Your task to perform on an android device: Open Maps and search for coffee Image 0: 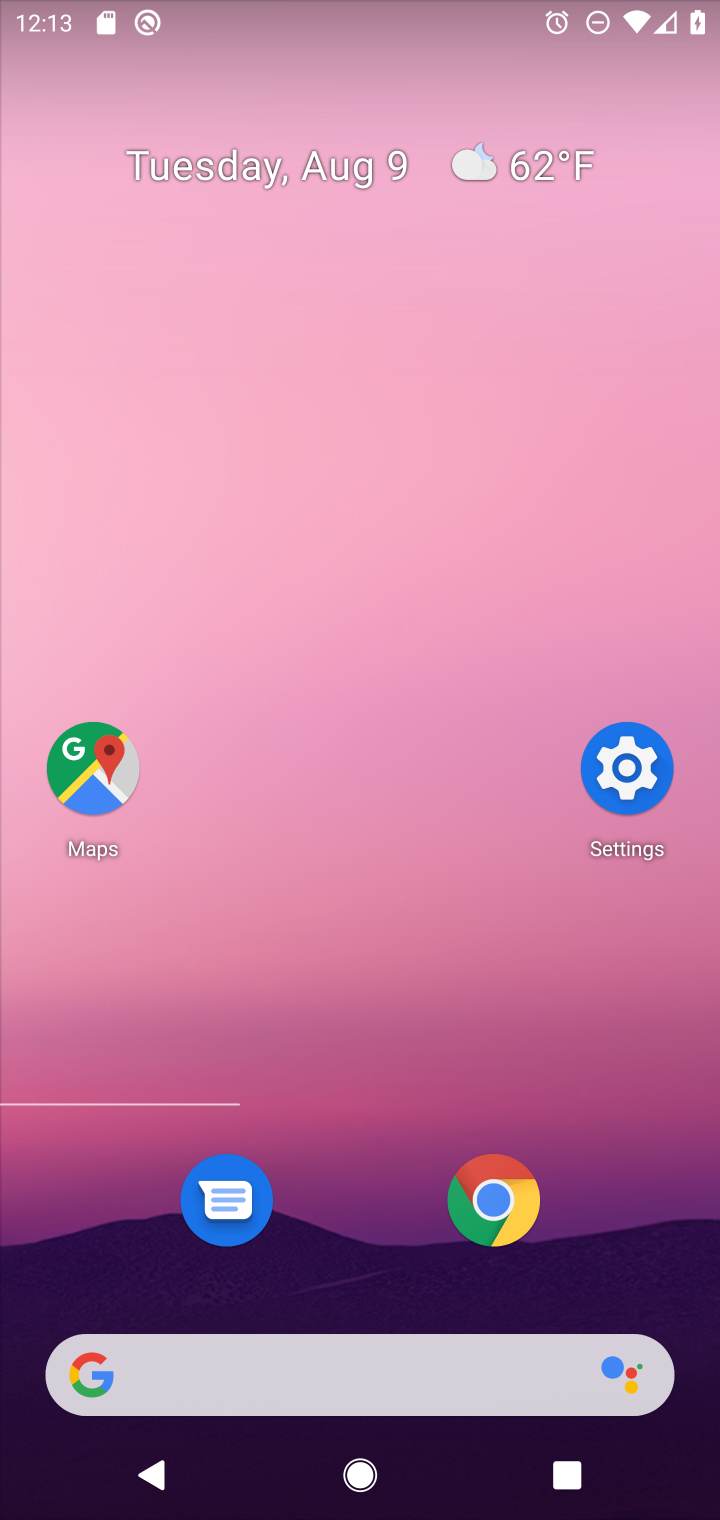
Step 0: press home button
Your task to perform on an android device: Open Maps and search for coffee Image 1: 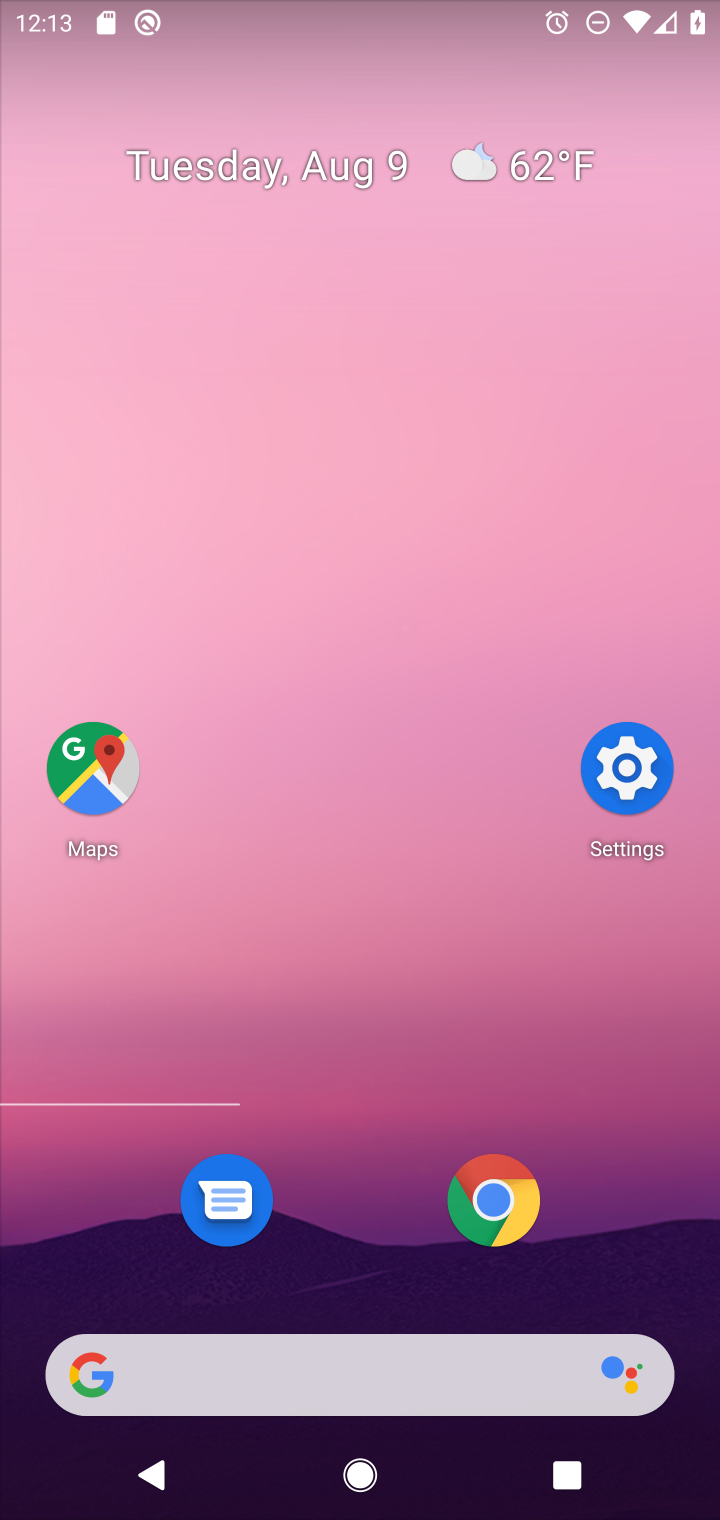
Step 1: click (89, 770)
Your task to perform on an android device: Open Maps and search for coffee Image 2: 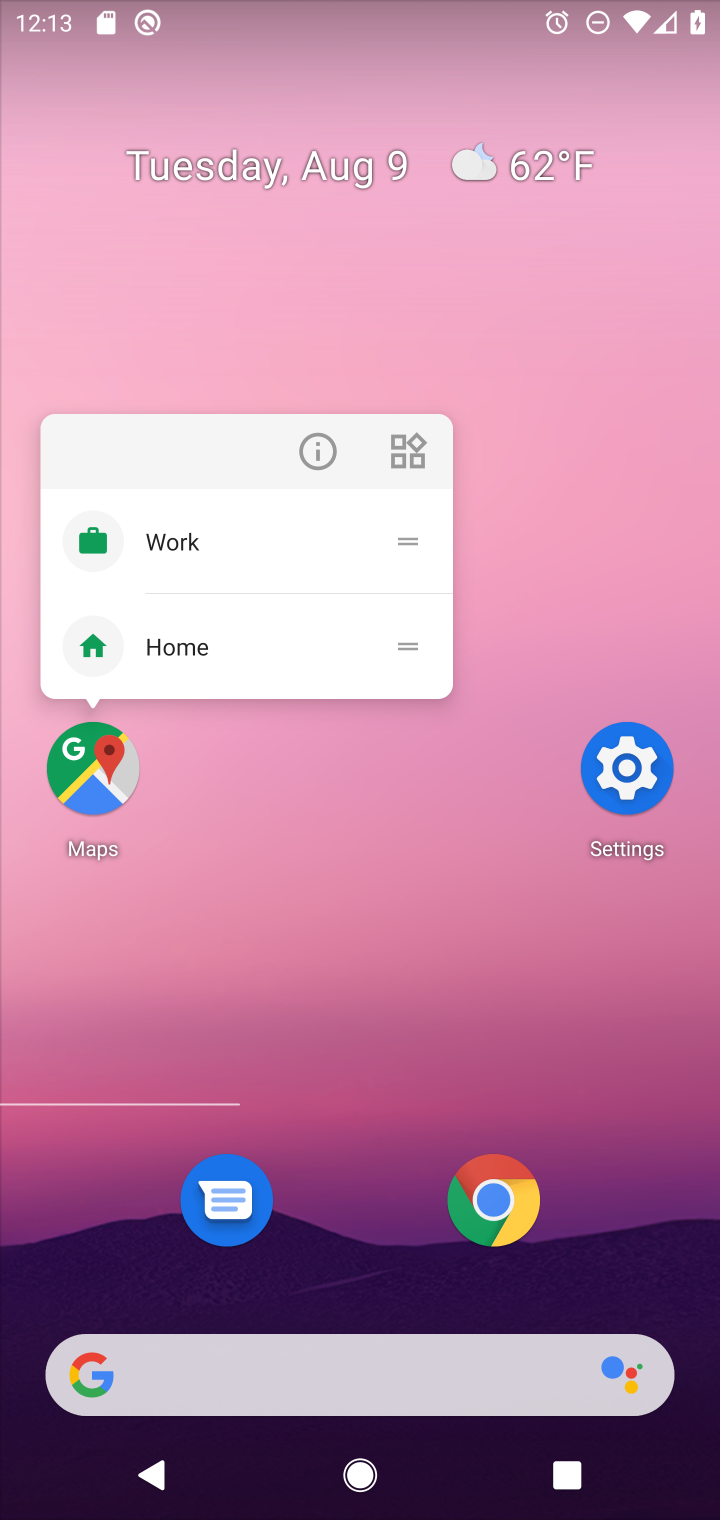
Step 2: click (89, 768)
Your task to perform on an android device: Open Maps and search for coffee Image 3: 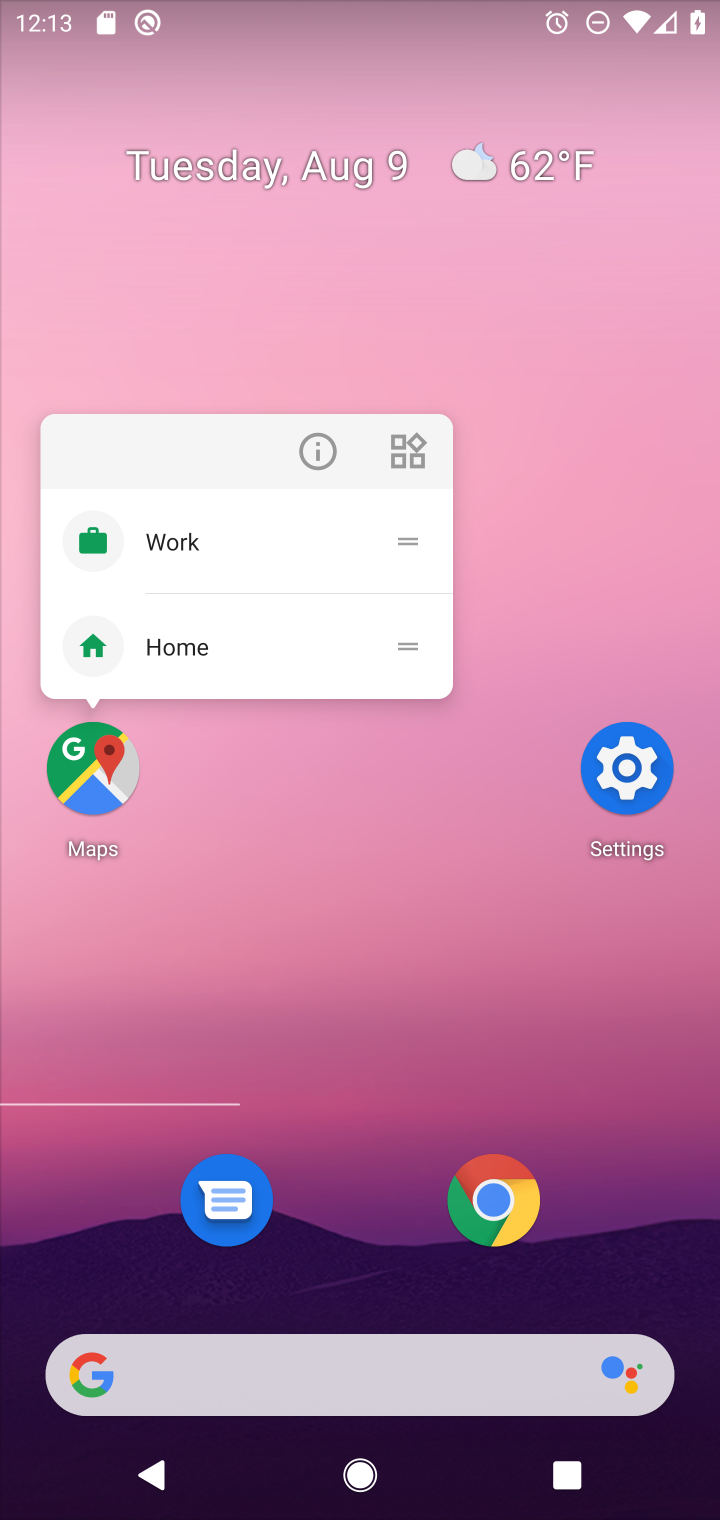
Step 3: click (89, 772)
Your task to perform on an android device: Open Maps and search for coffee Image 4: 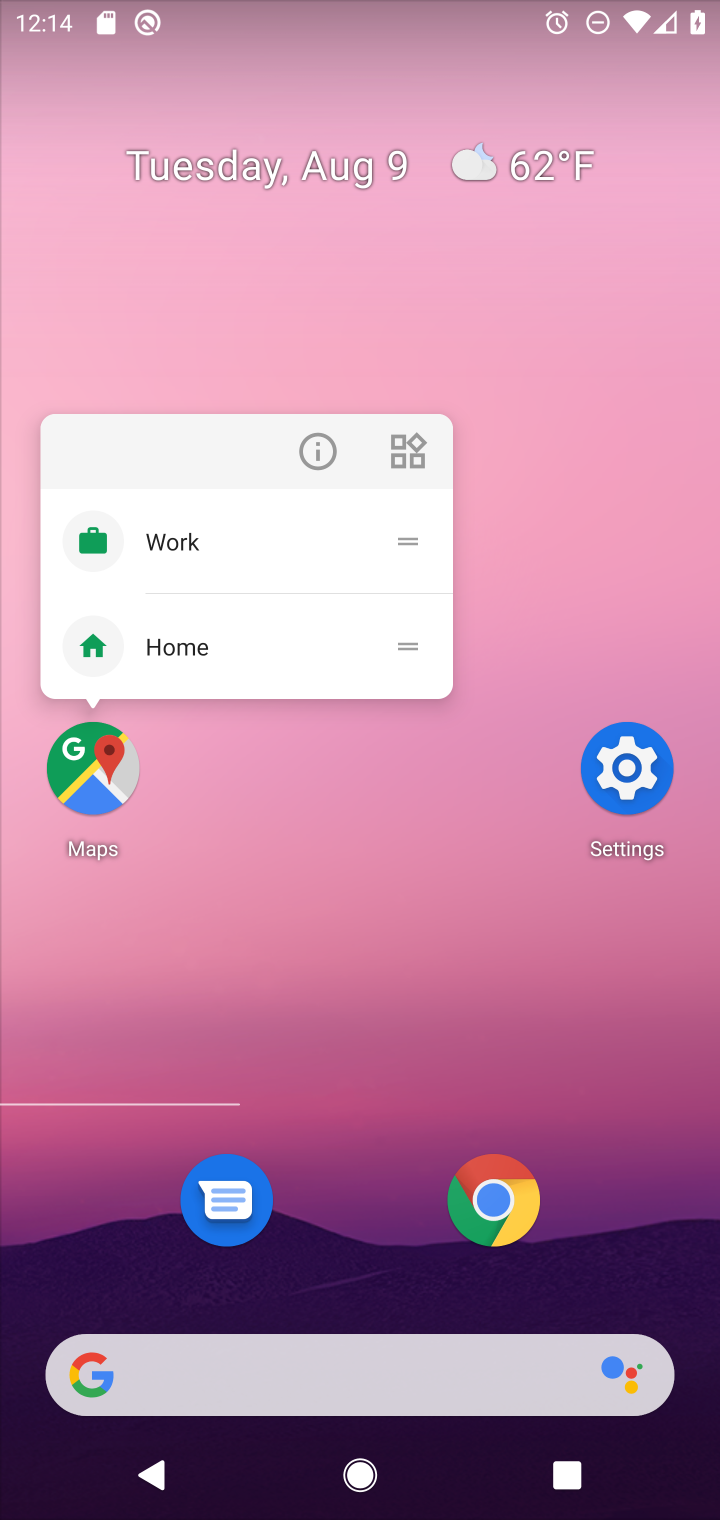
Step 4: click (89, 772)
Your task to perform on an android device: Open Maps and search for coffee Image 5: 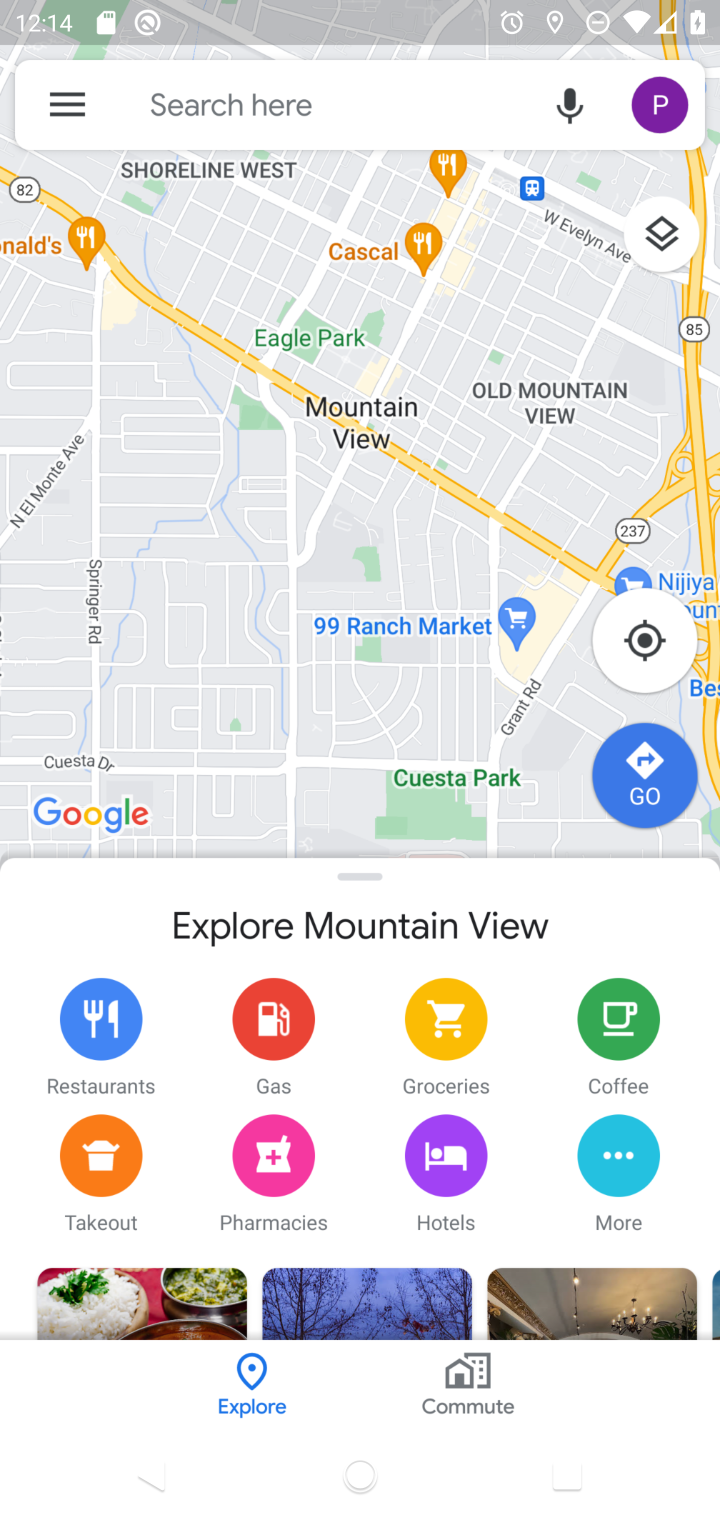
Step 5: click (234, 105)
Your task to perform on an android device: Open Maps and search for coffee Image 6: 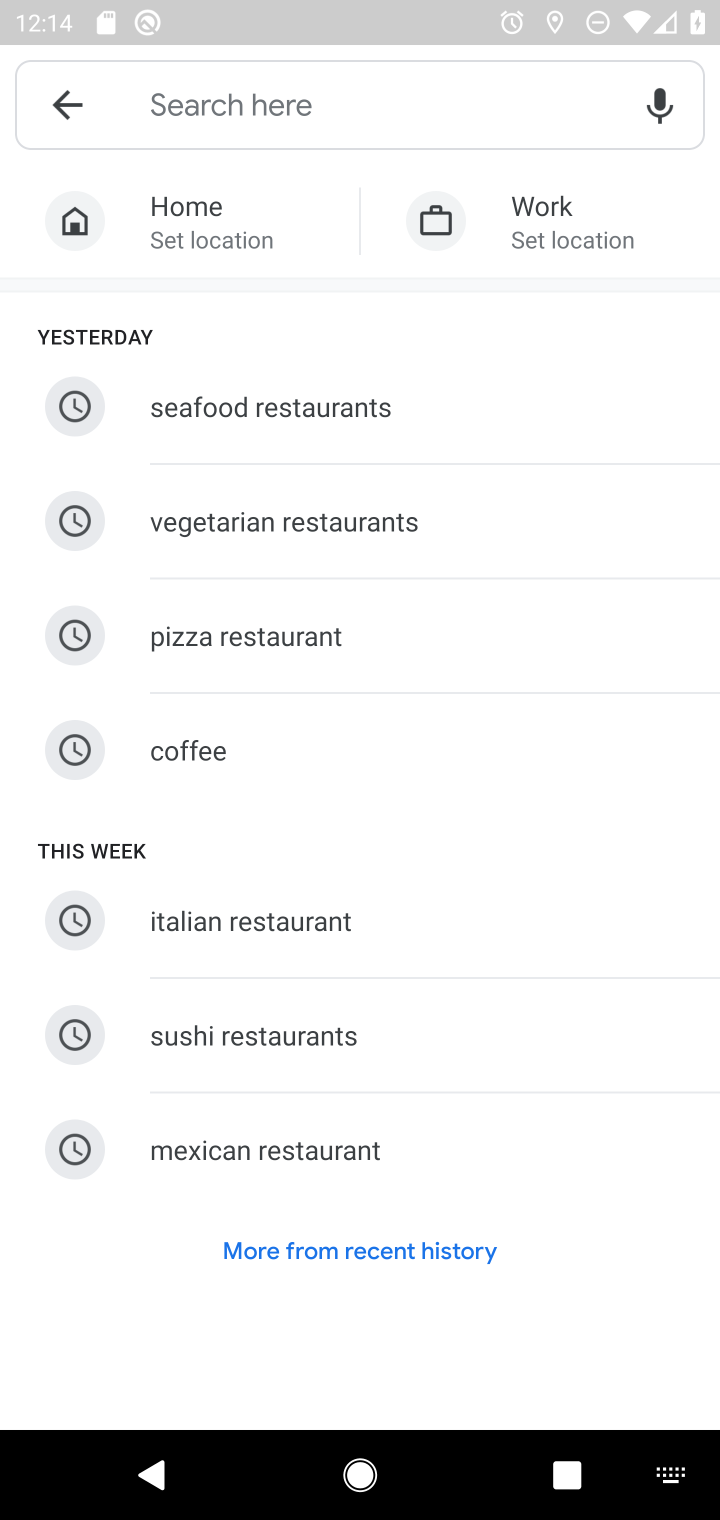
Step 6: click (195, 749)
Your task to perform on an android device: Open Maps and search for coffee Image 7: 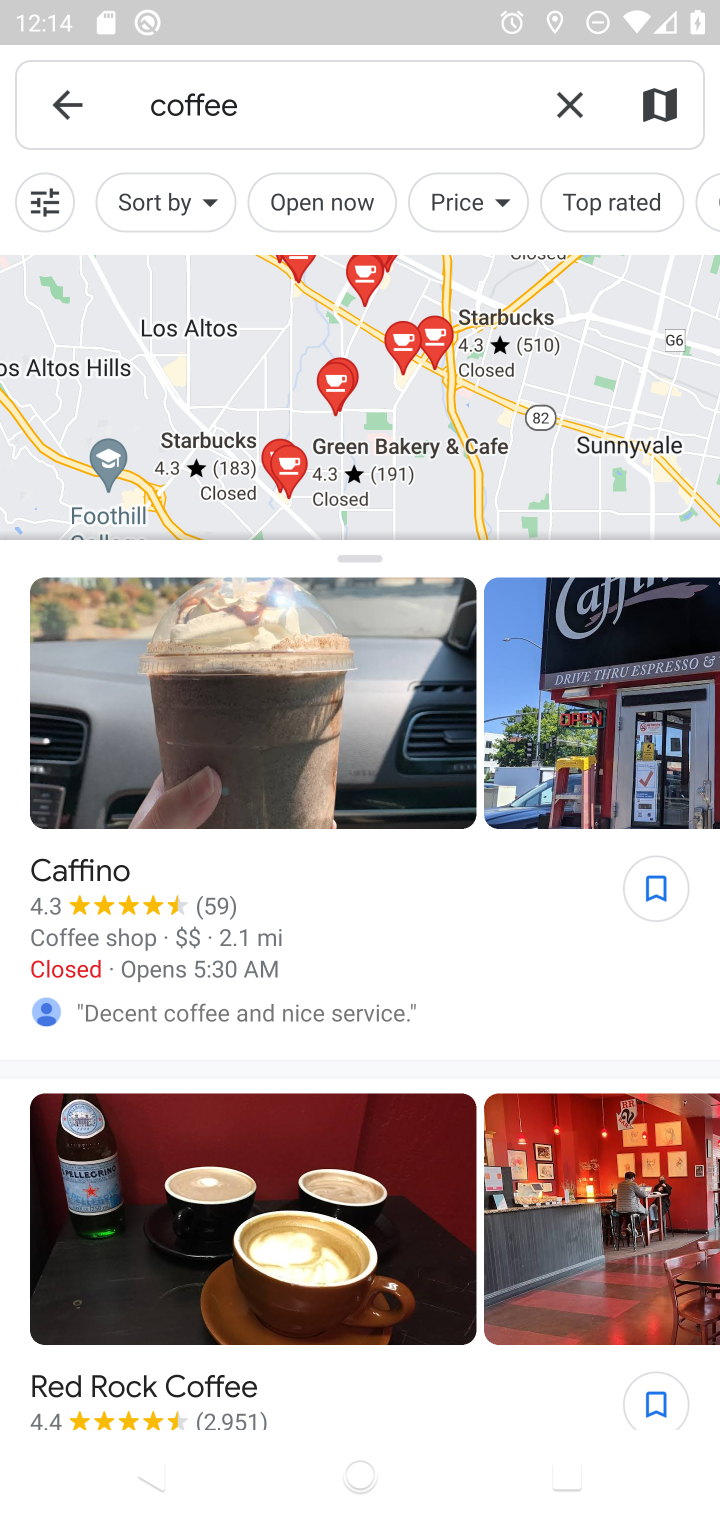
Step 7: task complete